Your task to perform on an android device: Show me productivity apps on the Play Store Image 0: 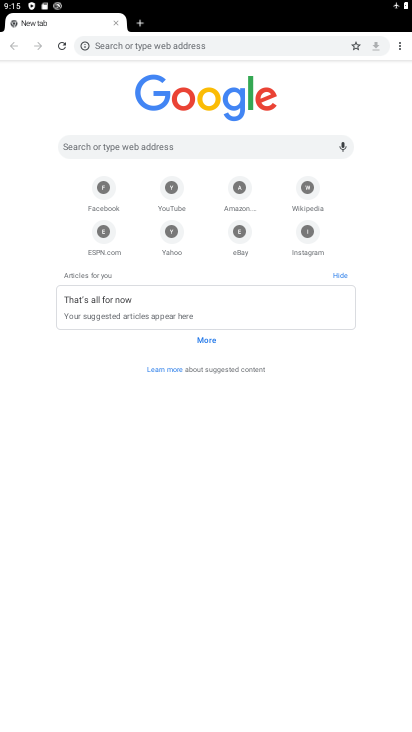
Step 0: press home button
Your task to perform on an android device: Show me productivity apps on the Play Store Image 1: 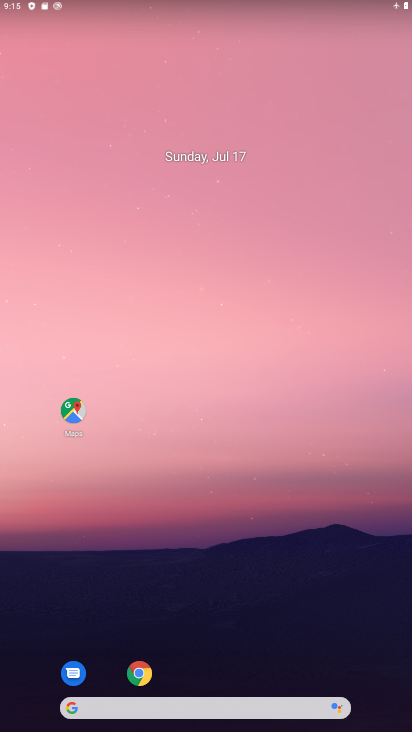
Step 1: drag from (383, 670) to (331, 262)
Your task to perform on an android device: Show me productivity apps on the Play Store Image 2: 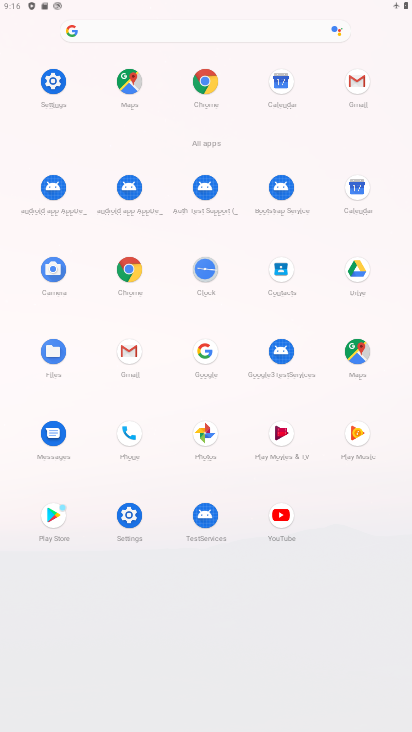
Step 2: click (51, 513)
Your task to perform on an android device: Show me productivity apps on the Play Store Image 3: 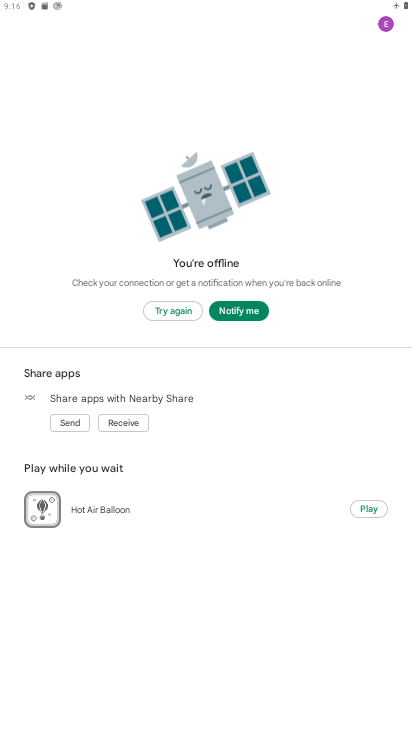
Step 3: click (167, 308)
Your task to perform on an android device: Show me productivity apps on the Play Store Image 4: 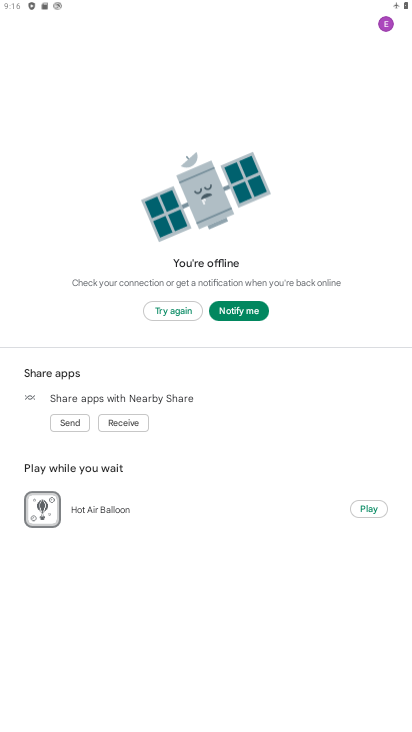
Step 4: click (167, 308)
Your task to perform on an android device: Show me productivity apps on the Play Store Image 5: 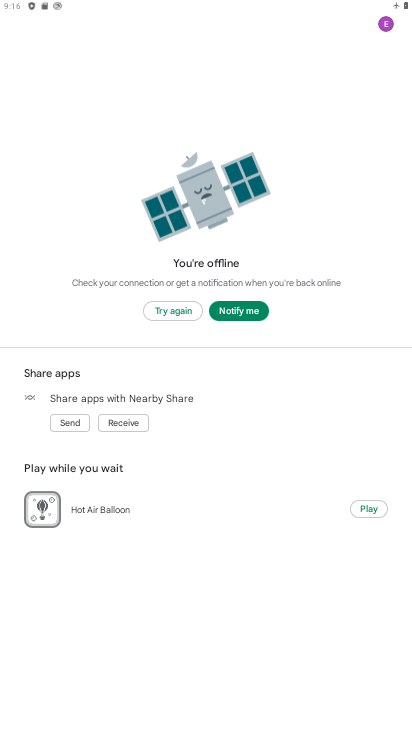
Step 5: click (167, 308)
Your task to perform on an android device: Show me productivity apps on the Play Store Image 6: 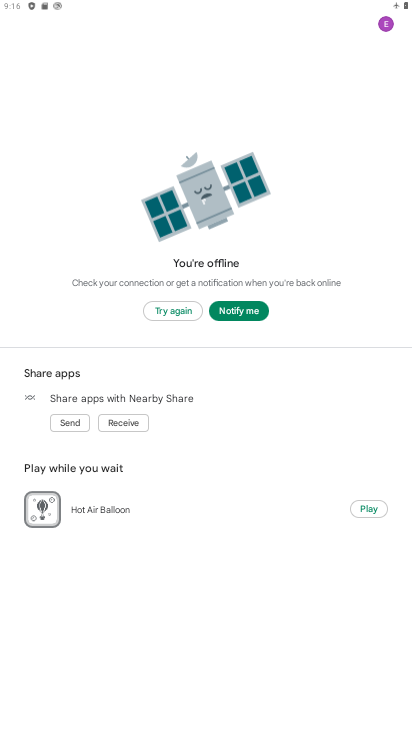
Step 6: task complete